Your task to perform on an android device: Open internet settings Image 0: 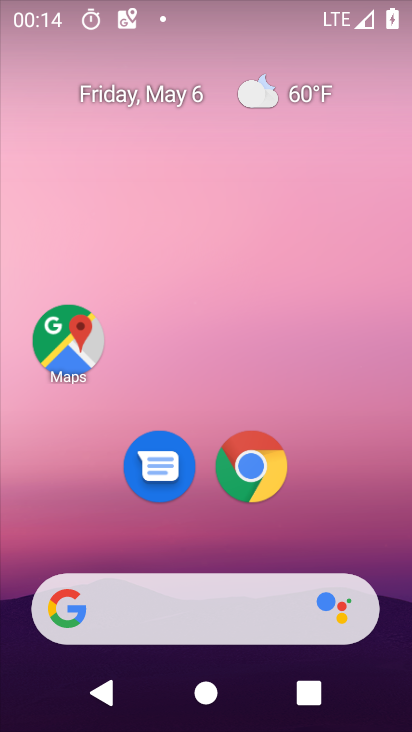
Step 0: drag from (236, 573) to (254, 172)
Your task to perform on an android device: Open internet settings Image 1: 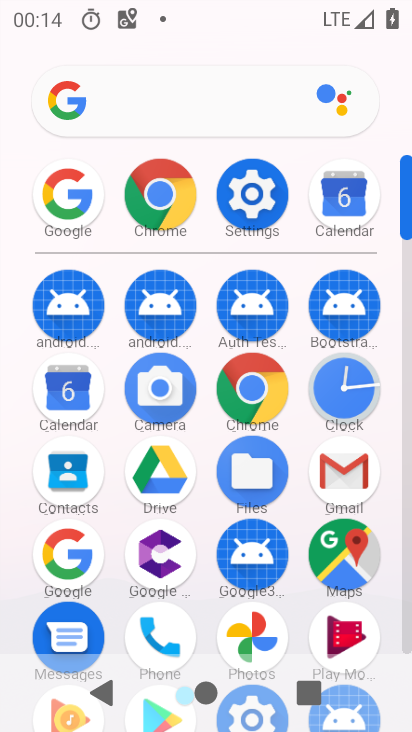
Step 1: click (238, 206)
Your task to perform on an android device: Open internet settings Image 2: 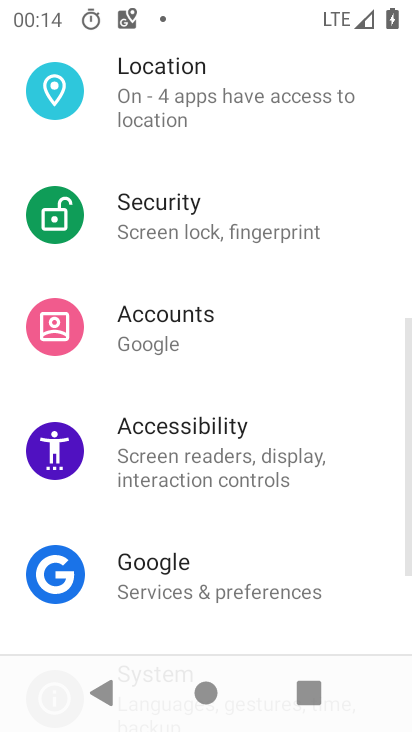
Step 2: drag from (250, 110) to (261, 447)
Your task to perform on an android device: Open internet settings Image 3: 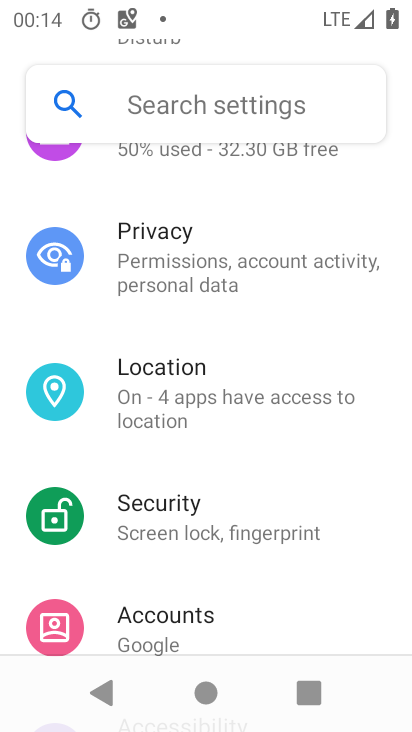
Step 3: drag from (228, 211) to (273, 567)
Your task to perform on an android device: Open internet settings Image 4: 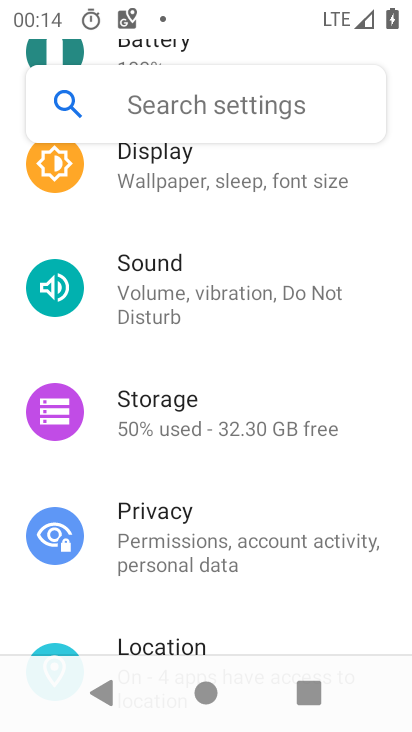
Step 4: drag from (257, 219) to (266, 594)
Your task to perform on an android device: Open internet settings Image 5: 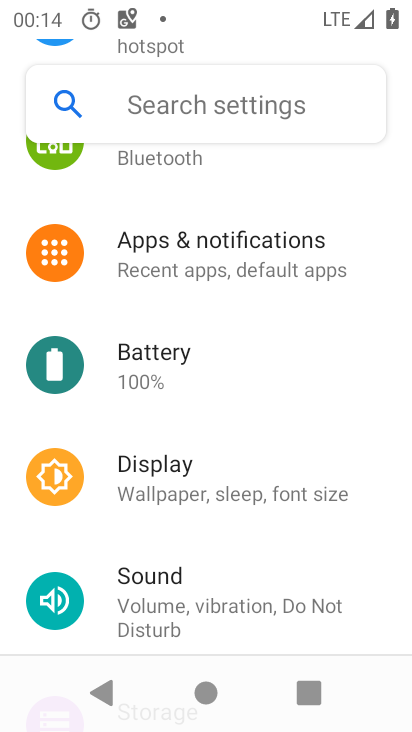
Step 5: drag from (239, 214) to (260, 628)
Your task to perform on an android device: Open internet settings Image 6: 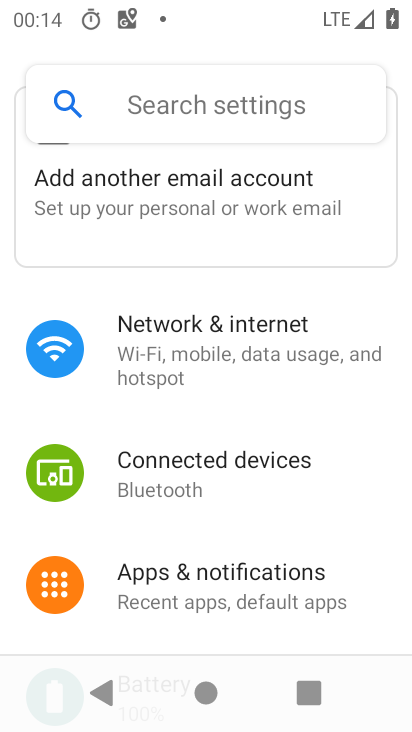
Step 6: click (199, 335)
Your task to perform on an android device: Open internet settings Image 7: 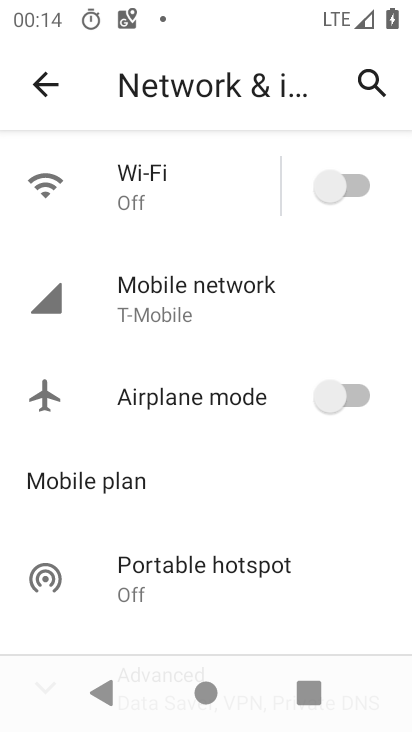
Step 7: click (159, 310)
Your task to perform on an android device: Open internet settings Image 8: 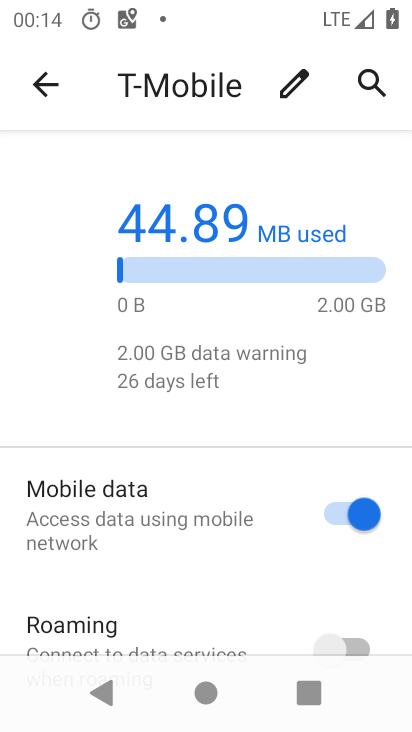
Step 8: drag from (200, 612) to (248, 248)
Your task to perform on an android device: Open internet settings Image 9: 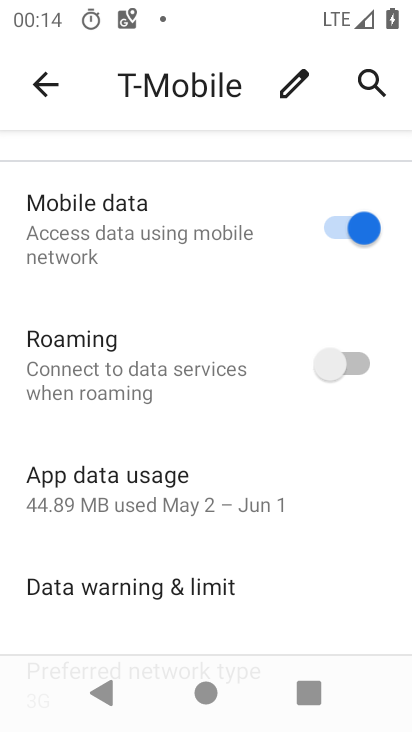
Step 9: drag from (197, 572) to (215, 269)
Your task to perform on an android device: Open internet settings Image 10: 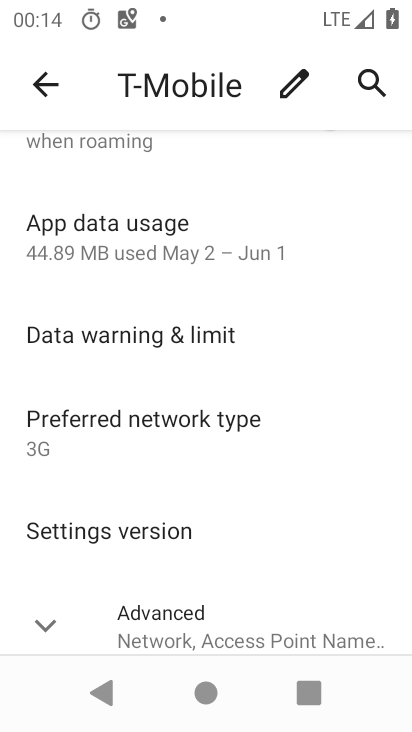
Step 10: drag from (218, 634) to (218, 361)
Your task to perform on an android device: Open internet settings Image 11: 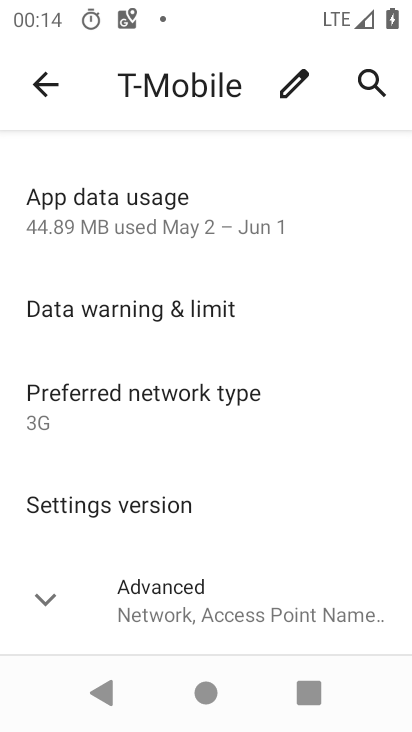
Step 11: click (224, 608)
Your task to perform on an android device: Open internet settings Image 12: 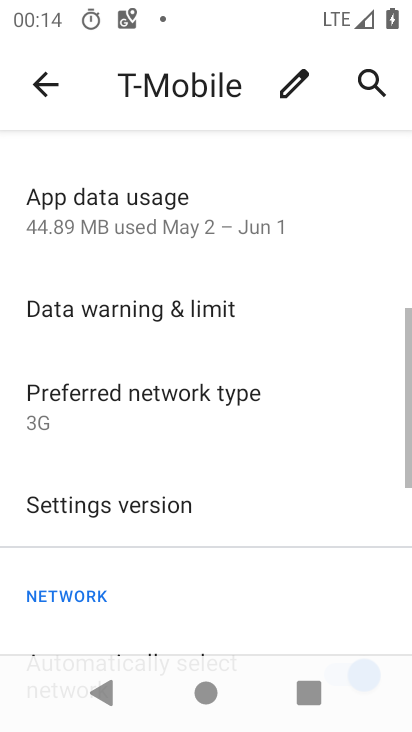
Step 12: task complete